Your task to perform on an android device: see tabs open on other devices in the chrome app Image 0: 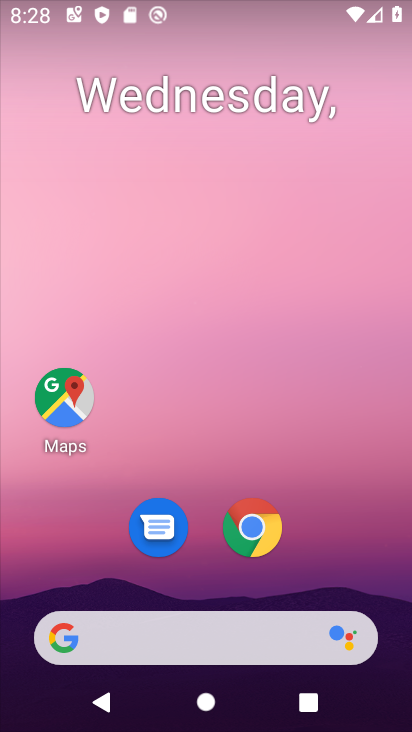
Step 0: click (260, 516)
Your task to perform on an android device: see tabs open on other devices in the chrome app Image 1: 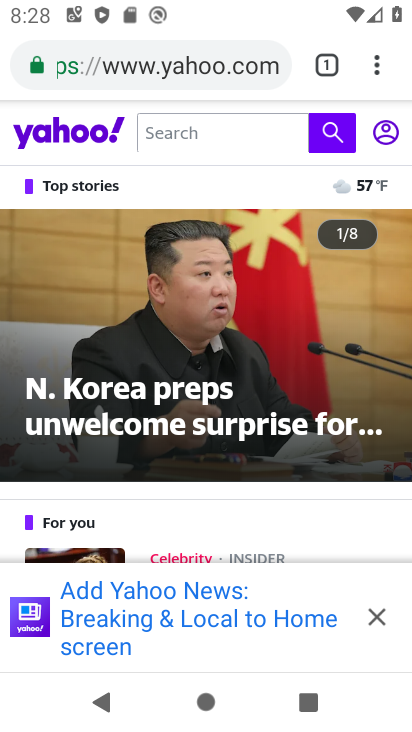
Step 1: click (381, 60)
Your task to perform on an android device: see tabs open on other devices in the chrome app Image 2: 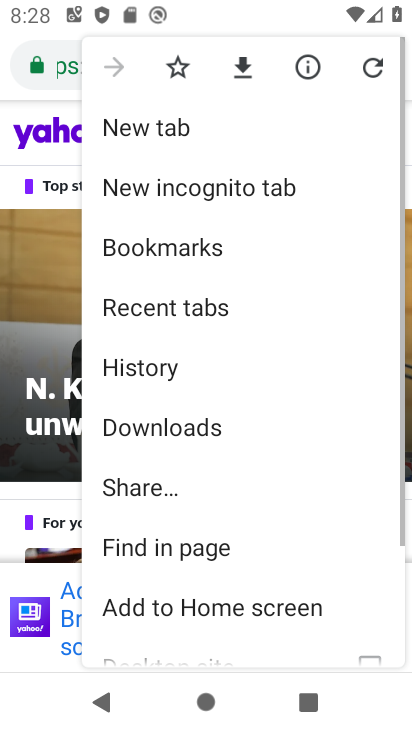
Step 2: drag from (171, 607) to (311, 55)
Your task to perform on an android device: see tabs open on other devices in the chrome app Image 3: 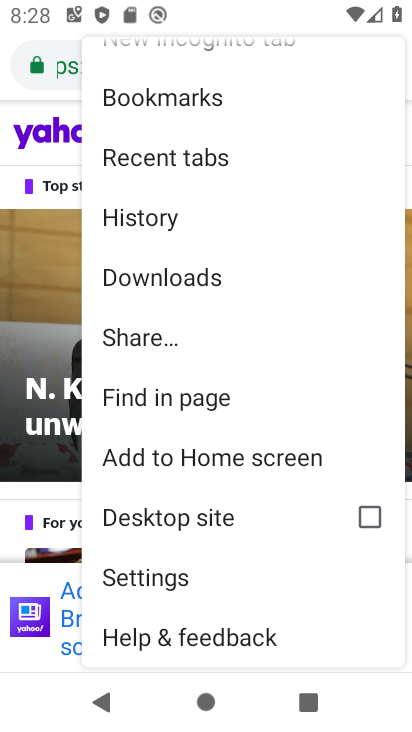
Step 3: click (179, 149)
Your task to perform on an android device: see tabs open on other devices in the chrome app Image 4: 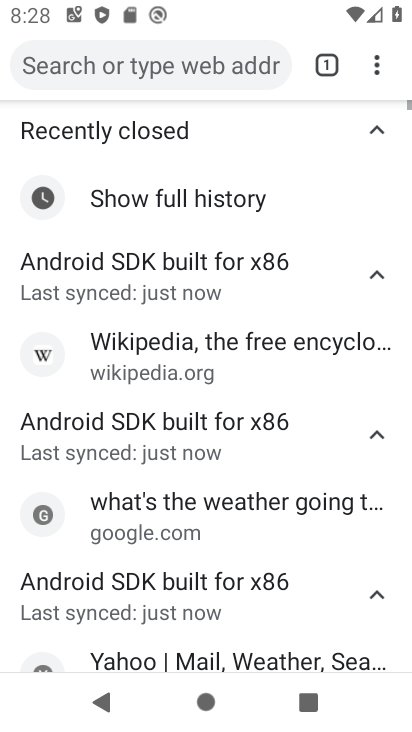
Step 4: task complete